Your task to perform on an android device: What's on my calendar tomorrow? Image 0: 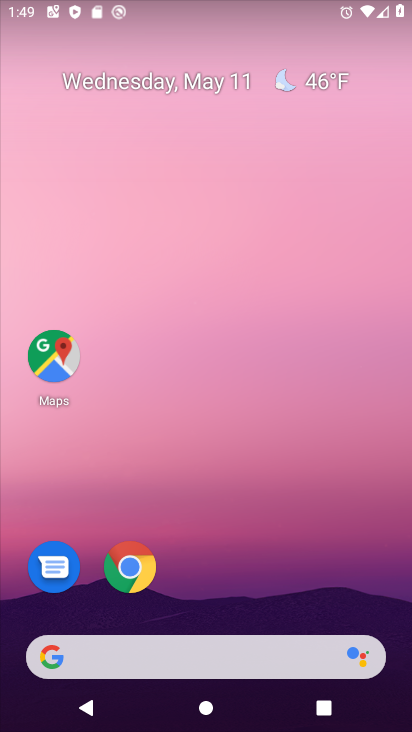
Step 0: drag from (207, 619) to (137, 74)
Your task to perform on an android device: What's on my calendar tomorrow? Image 1: 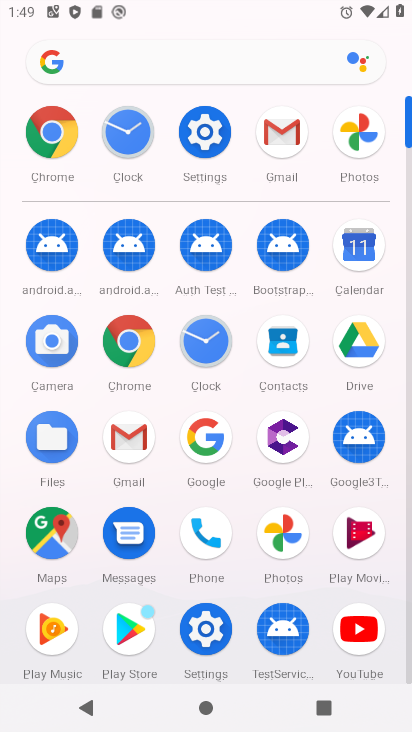
Step 1: click (384, 258)
Your task to perform on an android device: What's on my calendar tomorrow? Image 2: 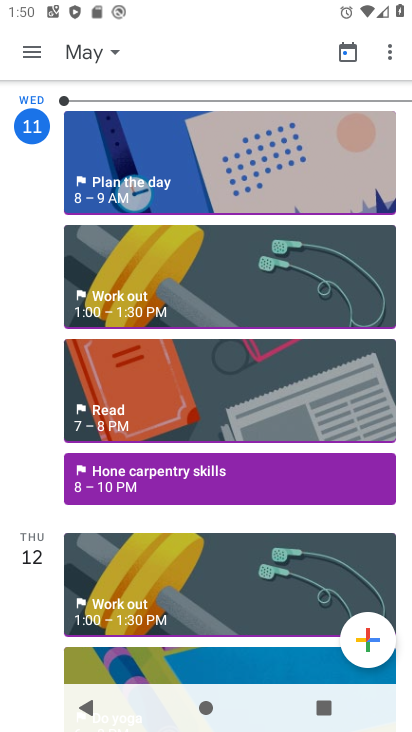
Step 2: click (45, 560)
Your task to perform on an android device: What's on my calendar tomorrow? Image 3: 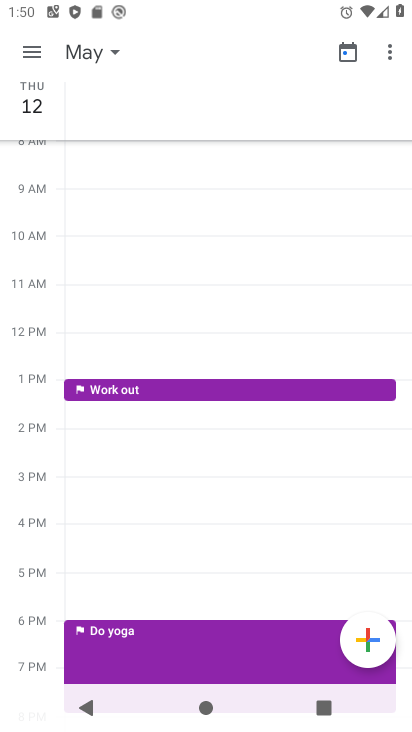
Step 3: task complete